Your task to perform on an android device: open chrome and create a bookmark for the current page Image 0: 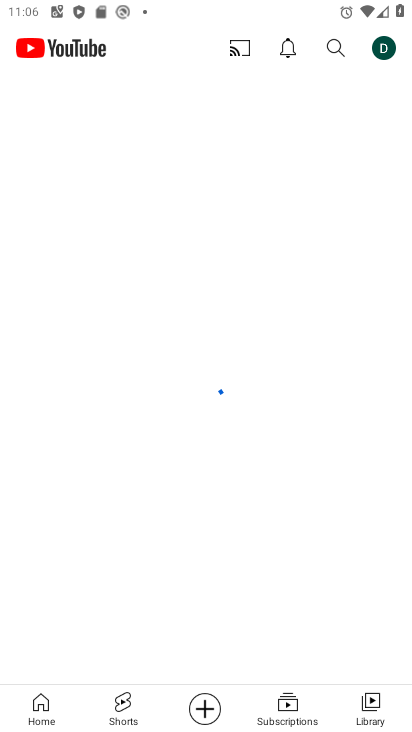
Step 0: press home button
Your task to perform on an android device: open chrome and create a bookmark for the current page Image 1: 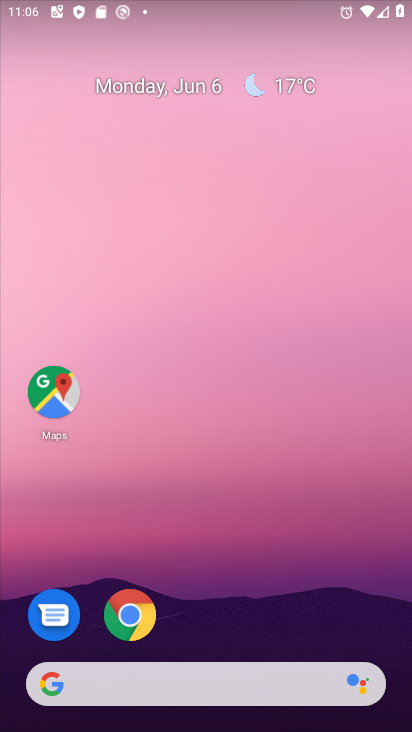
Step 1: click (131, 611)
Your task to perform on an android device: open chrome and create a bookmark for the current page Image 2: 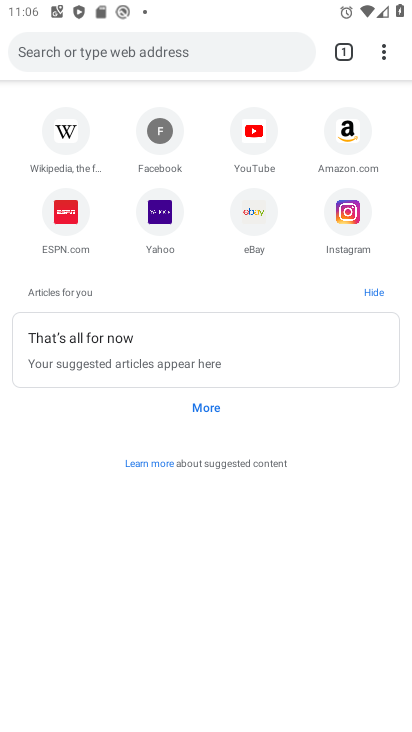
Step 2: click (379, 52)
Your task to perform on an android device: open chrome and create a bookmark for the current page Image 3: 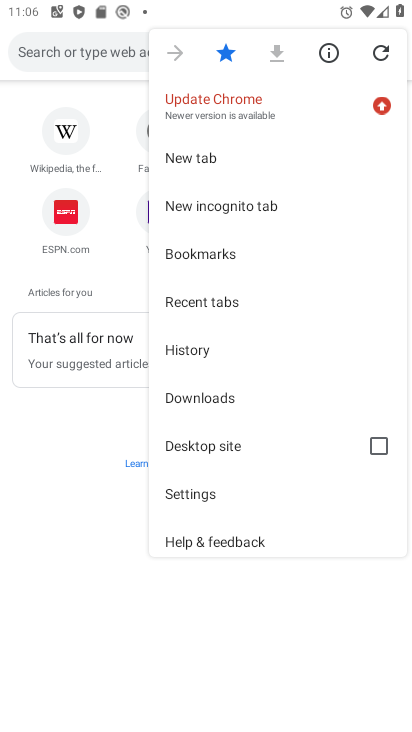
Step 3: task complete